Your task to perform on an android device: Check the weather Image 0: 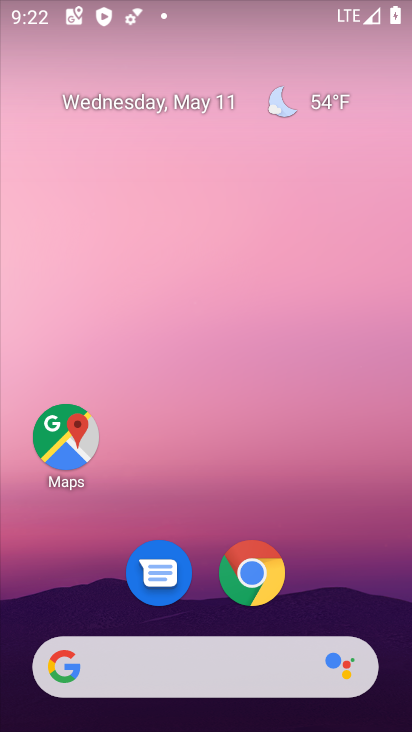
Step 0: drag from (293, 654) to (317, 49)
Your task to perform on an android device: Check the weather Image 1: 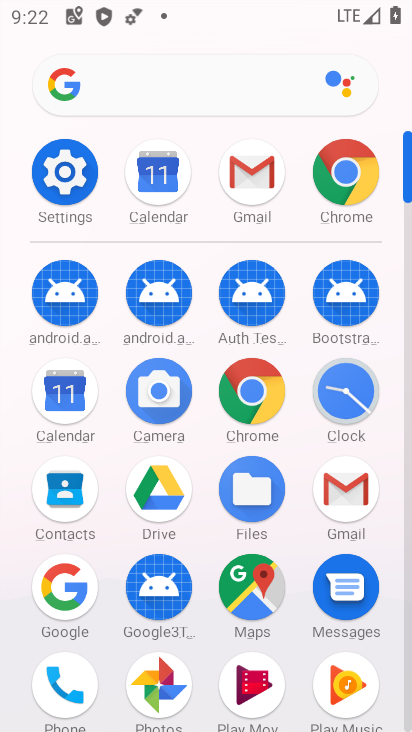
Step 1: click (235, 392)
Your task to perform on an android device: Check the weather Image 2: 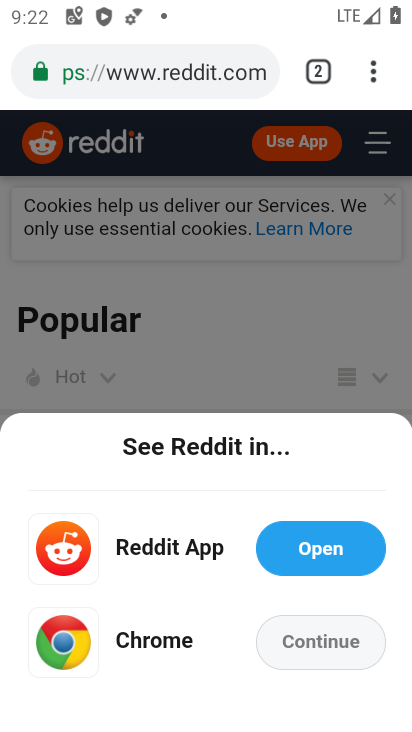
Step 2: click (255, 74)
Your task to perform on an android device: Check the weather Image 3: 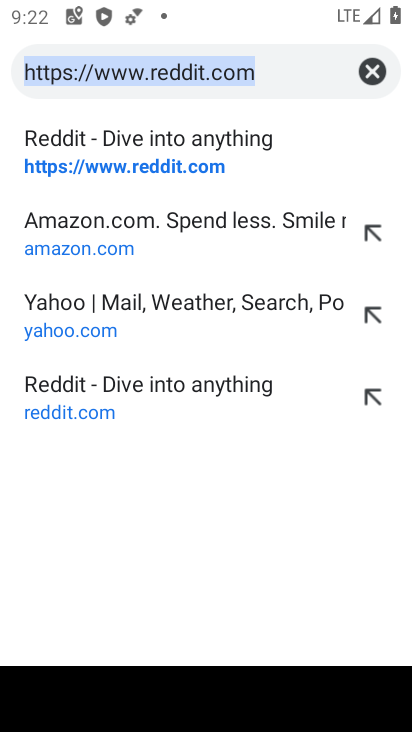
Step 3: click (387, 74)
Your task to perform on an android device: Check the weather Image 4: 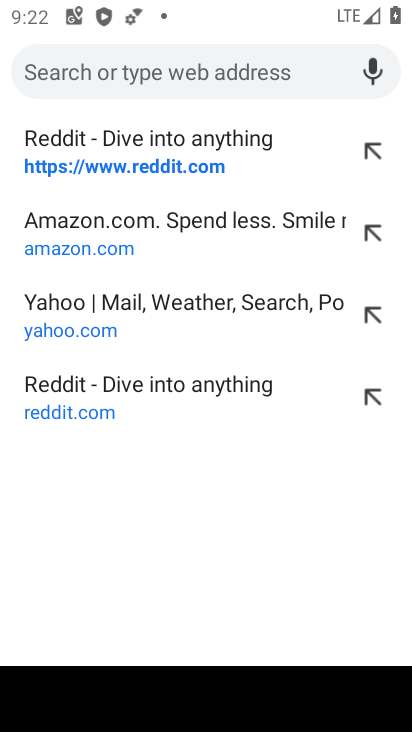
Step 4: type "check the weather"
Your task to perform on an android device: Check the weather Image 5: 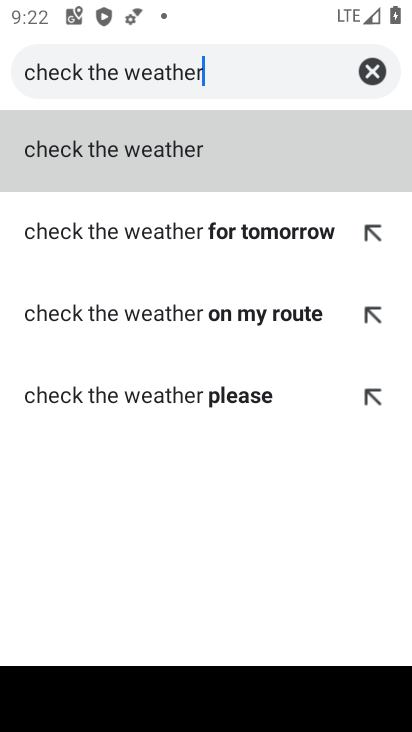
Step 5: click (133, 156)
Your task to perform on an android device: Check the weather Image 6: 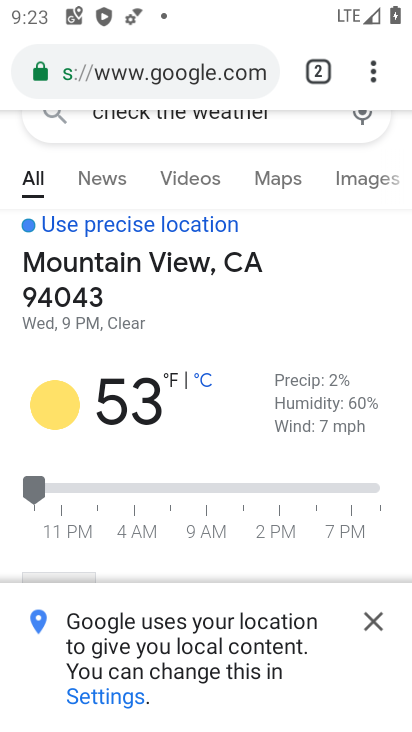
Step 6: task complete